Your task to perform on an android device: toggle data saver in the chrome app Image 0: 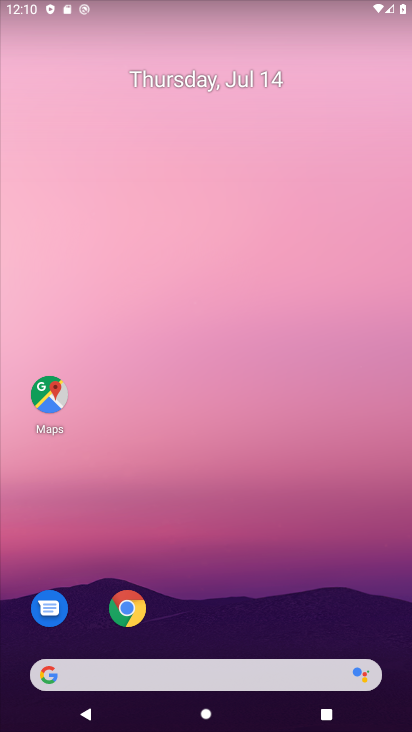
Step 0: click (129, 619)
Your task to perform on an android device: toggle data saver in the chrome app Image 1: 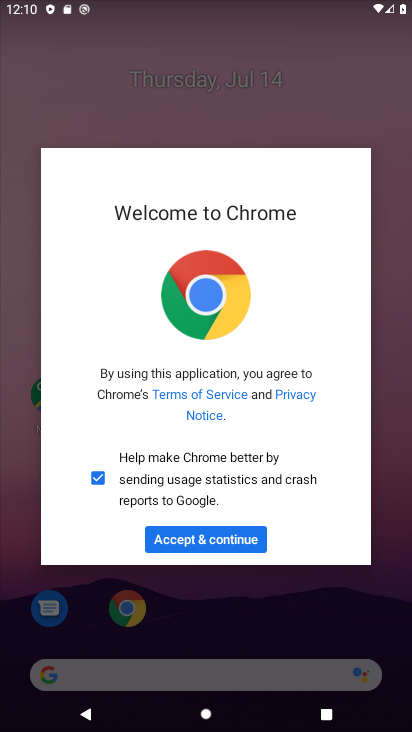
Step 1: click (243, 539)
Your task to perform on an android device: toggle data saver in the chrome app Image 2: 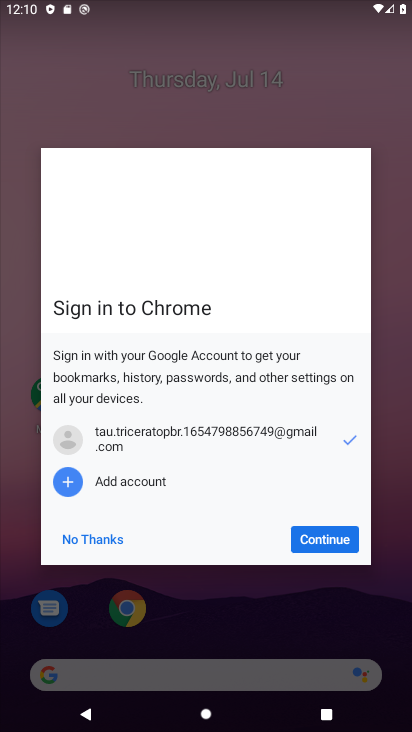
Step 2: click (336, 536)
Your task to perform on an android device: toggle data saver in the chrome app Image 3: 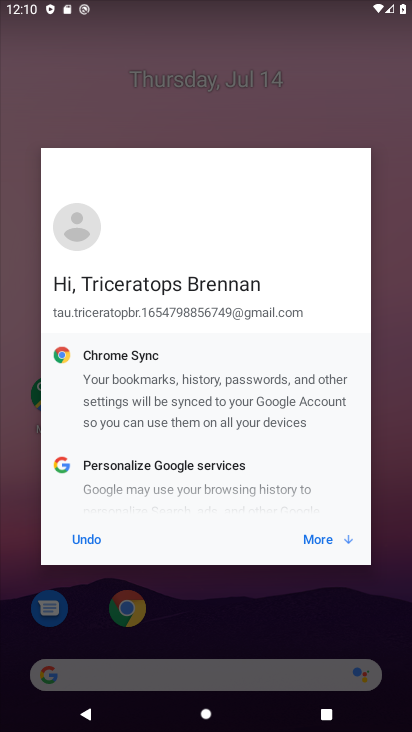
Step 3: click (318, 540)
Your task to perform on an android device: toggle data saver in the chrome app Image 4: 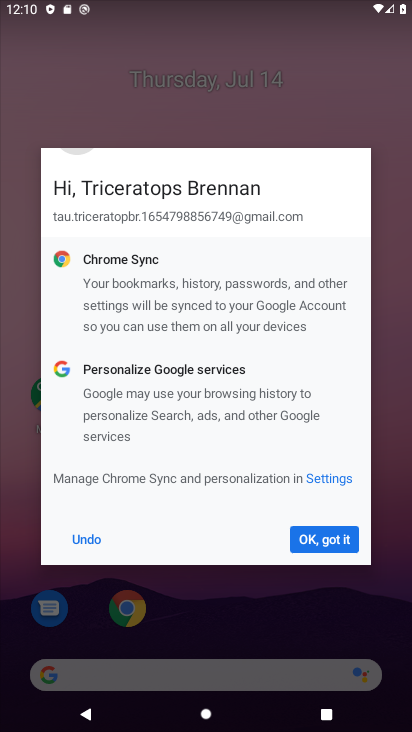
Step 4: click (304, 545)
Your task to perform on an android device: toggle data saver in the chrome app Image 5: 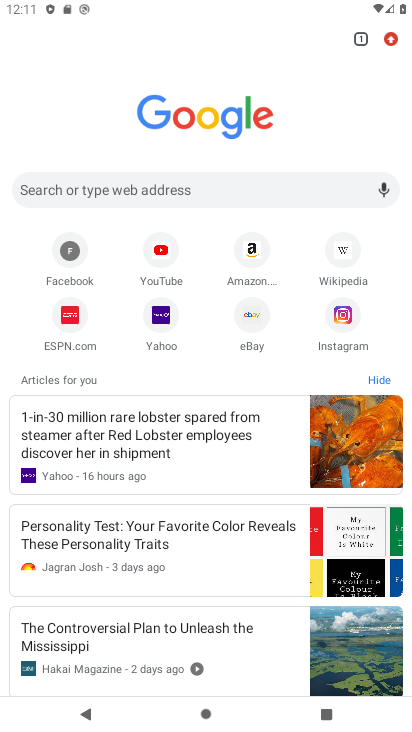
Step 5: click (387, 53)
Your task to perform on an android device: toggle data saver in the chrome app Image 6: 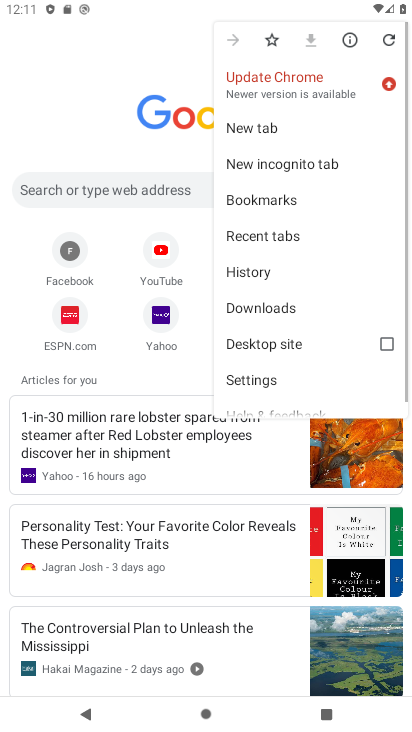
Step 6: click (393, 43)
Your task to perform on an android device: toggle data saver in the chrome app Image 7: 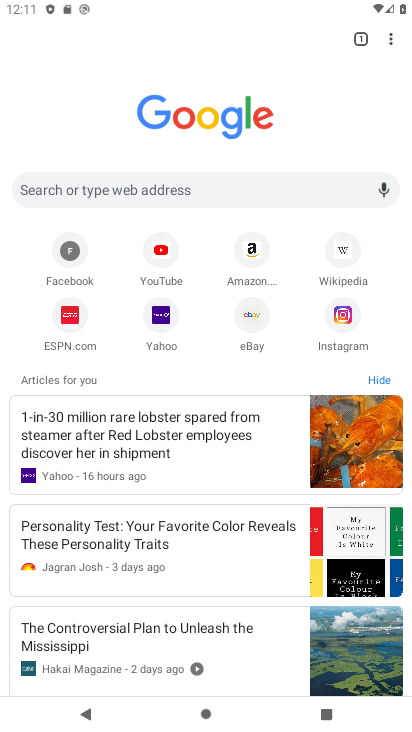
Step 7: click (394, 42)
Your task to perform on an android device: toggle data saver in the chrome app Image 8: 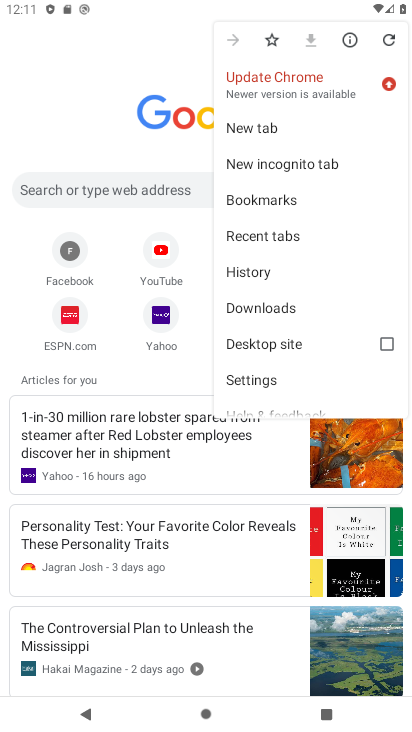
Step 8: click (271, 381)
Your task to perform on an android device: toggle data saver in the chrome app Image 9: 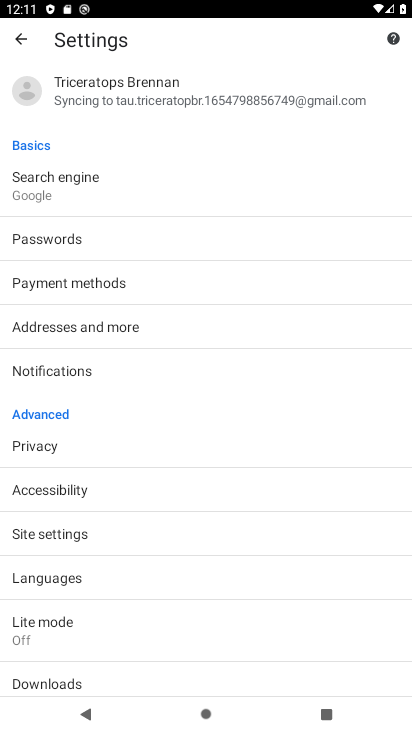
Step 9: click (82, 627)
Your task to perform on an android device: toggle data saver in the chrome app Image 10: 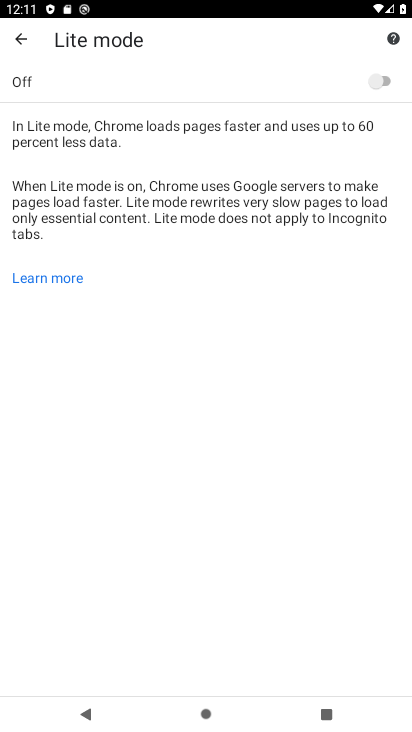
Step 10: click (376, 85)
Your task to perform on an android device: toggle data saver in the chrome app Image 11: 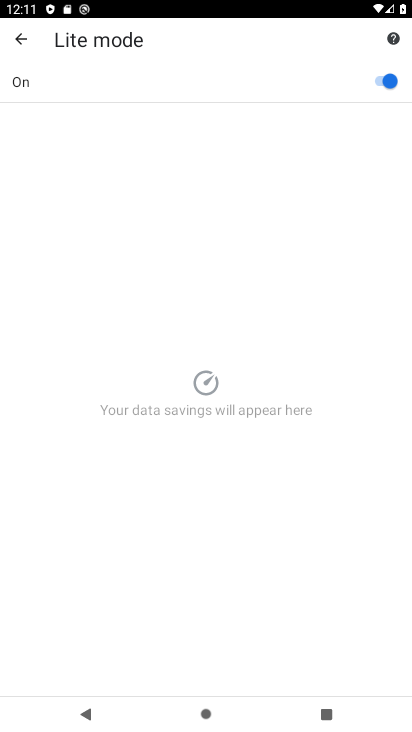
Step 11: task complete